Your task to perform on an android device: clear all cookies in the chrome app Image 0: 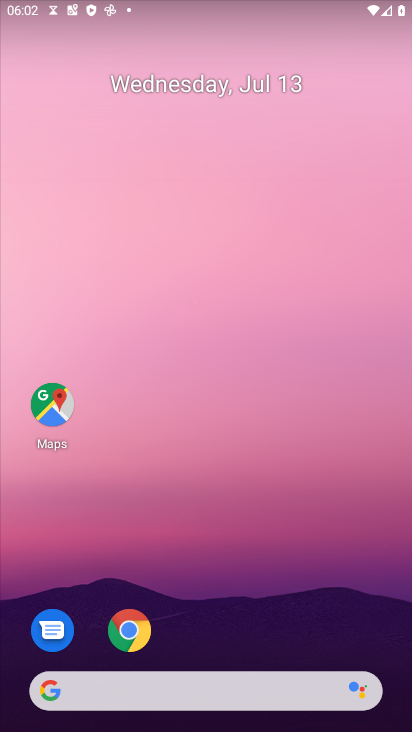
Step 0: drag from (138, 688) to (221, 157)
Your task to perform on an android device: clear all cookies in the chrome app Image 1: 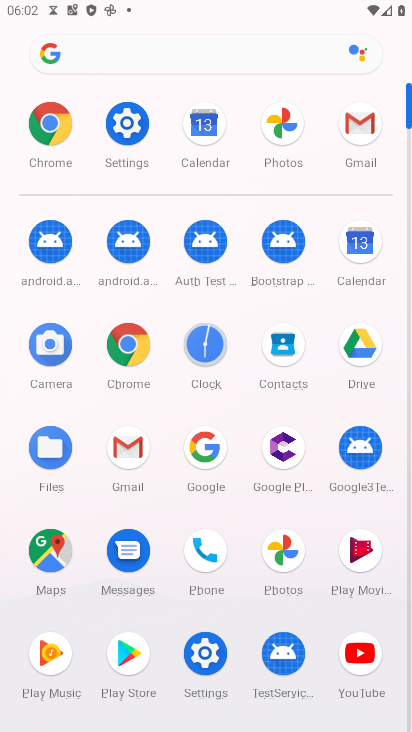
Step 1: click (140, 352)
Your task to perform on an android device: clear all cookies in the chrome app Image 2: 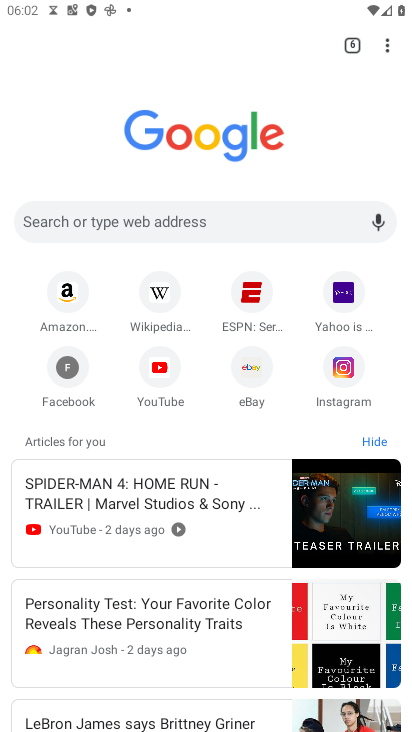
Step 2: drag from (390, 45) to (242, 254)
Your task to perform on an android device: clear all cookies in the chrome app Image 3: 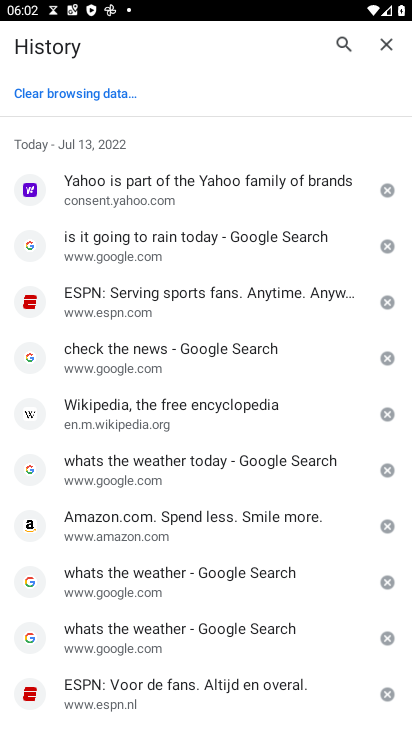
Step 3: click (104, 90)
Your task to perform on an android device: clear all cookies in the chrome app Image 4: 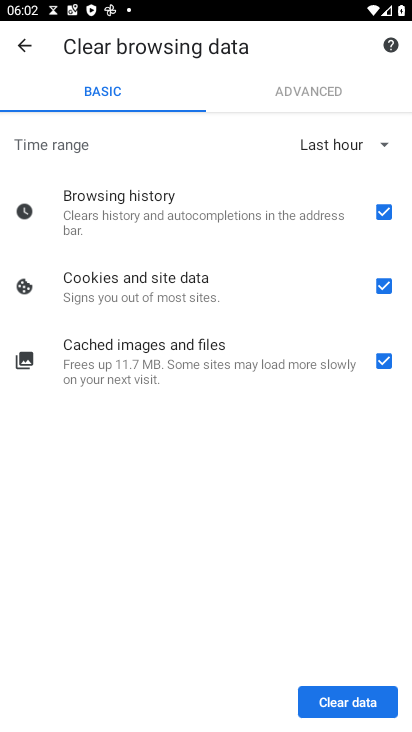
Step 4: click (322, 694)
Your task to perform on an android device: clear all cookies in the chrome app Image 5: 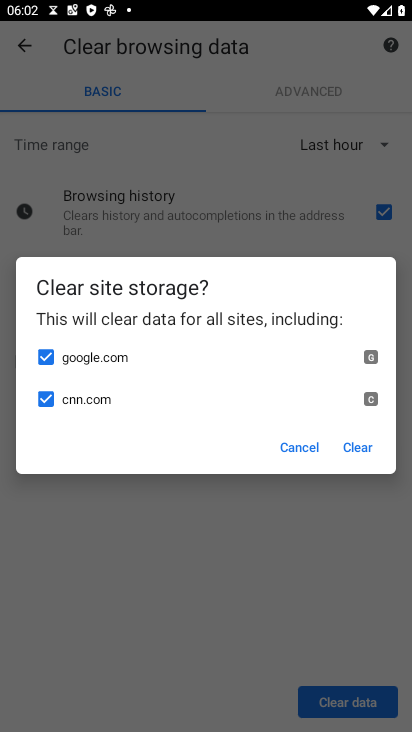
Step 5: click (354, 444)
Your task to perform on an android device: clear all cookies in the chrome app Image 6: 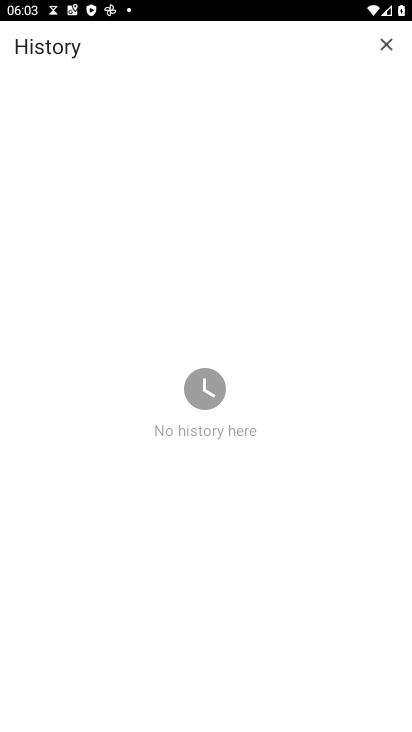
Step 6: task complete